Your task to perform on an android device: Go to Reddit.com Image 0: 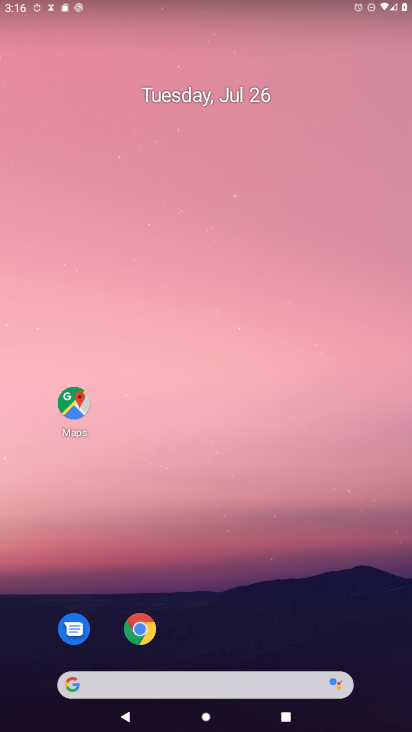
Step 0: drag from (289, 675) to (275, 147)
Your task to perform on an android device: Go to Reddit.com Image 1: 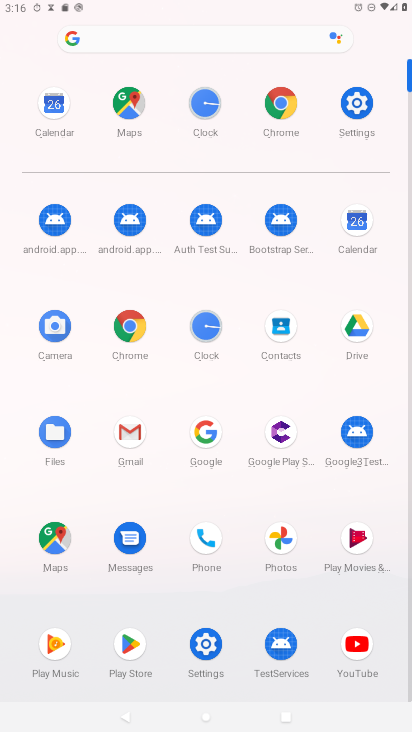
Step 1: click (137, 319)
Your task to perform on an android device: Go to Reddit.com Image 2: 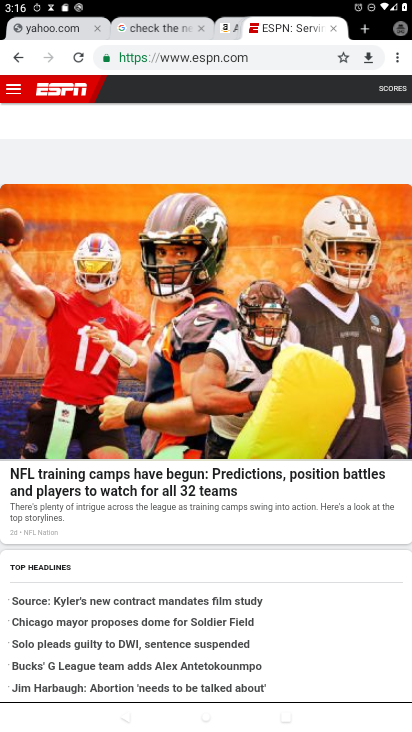
Step 2: click (171, 55)
Your task to perform on an android device: Go to Reddit.com Image 3: 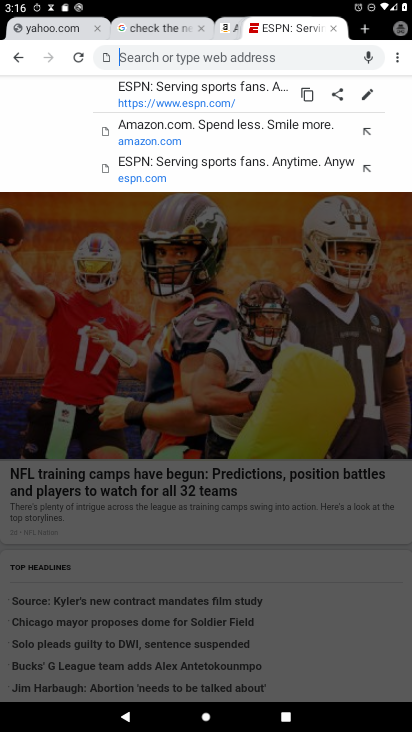
Step 3: type "reddit.com"
Your task to perform on an android device: Go to Reddit.com Image 4: 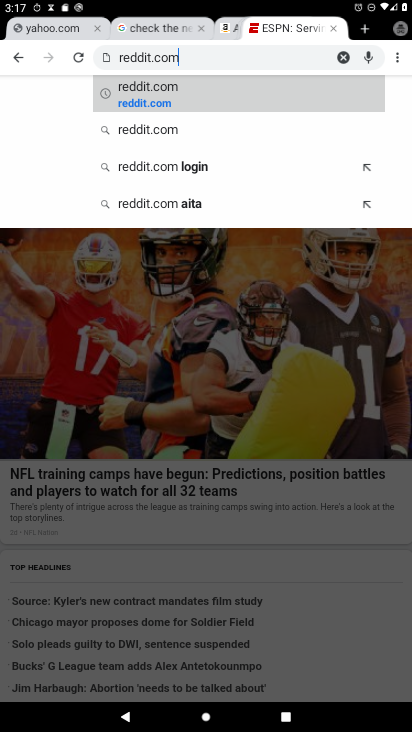
Step 4: click (133, 98)
Your task to perform on an android device: Go to Reddit.com Image 5: 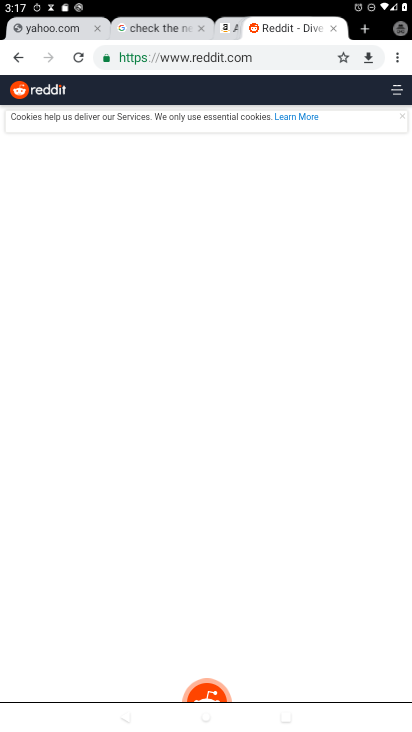
Step 5: task complete